Your task to perform on an android device: search for starred emails in the gmail app Image 0: 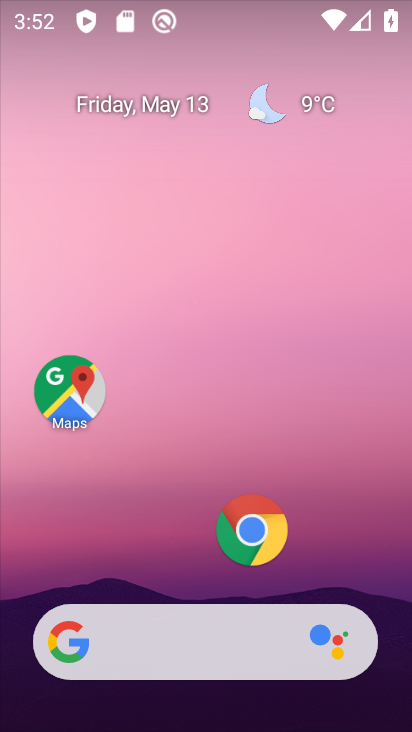
Step 0: drag from (198, 569) to (197, 68)
Your task to perform on an android device: search for starred emails in the gmail app Image 1: 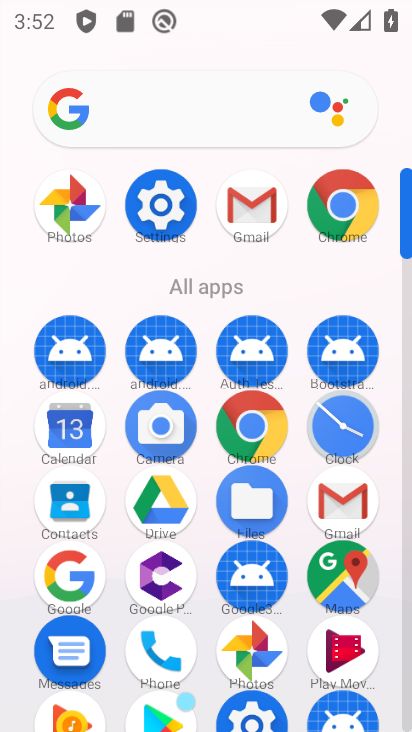
Step 1: click (248, 194)
Your task to perform on an android device: search for starred emails in the gmail app Image 2: 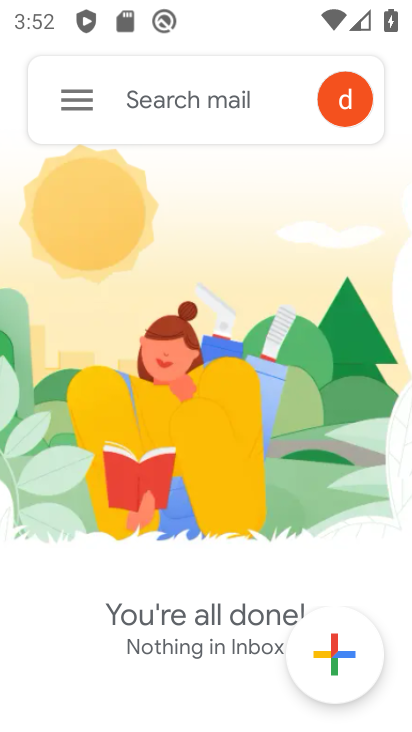
Step 2: click (71, 88)
Your task to perform on an android device: search for starred emails in the gmail app Image 3: 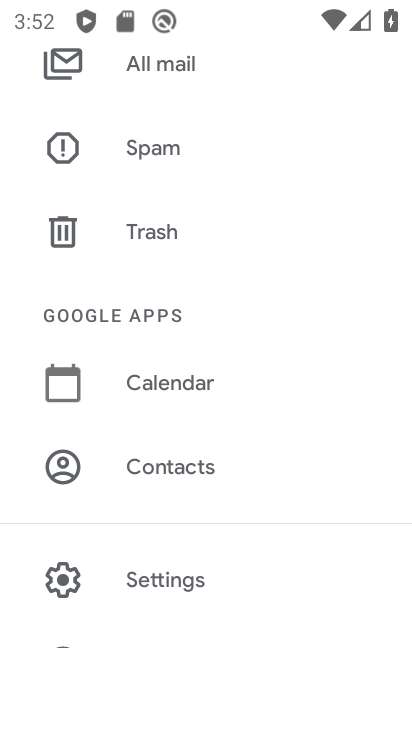
Step 3: drag from (118, 95) to (111, 622)
Your task to perform on an android device: search for starred emails in the gmail app Image 4: 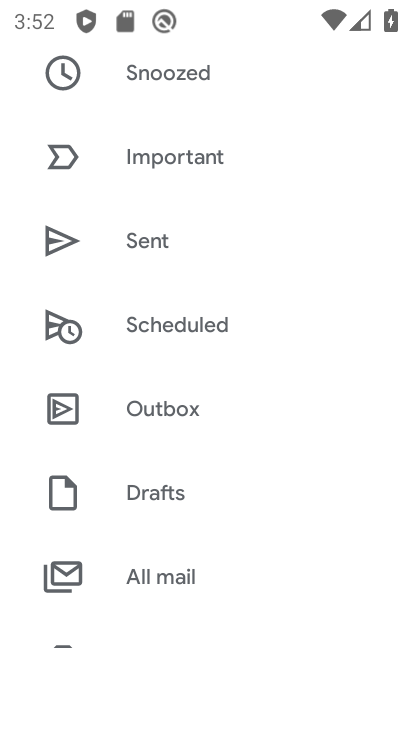
Step 4: drag from (103, 108) to (87, 607)
Your task to perform on an android device: search for starred emails in the gmail app Image 5: 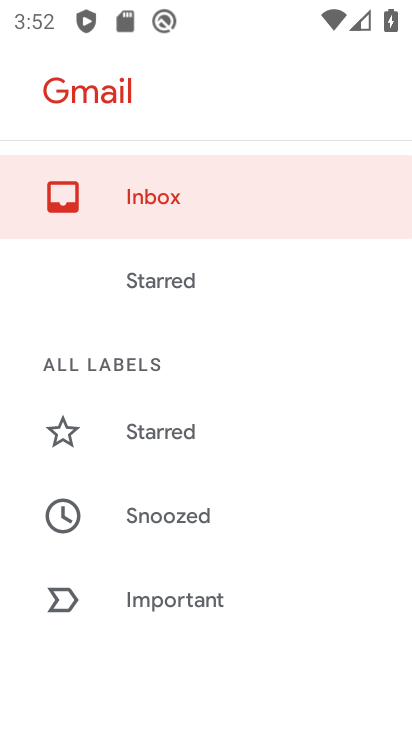
Step 5: click (105, 425)
Your task to perform on an android device: search for starred emails in the gmail app Image 6: 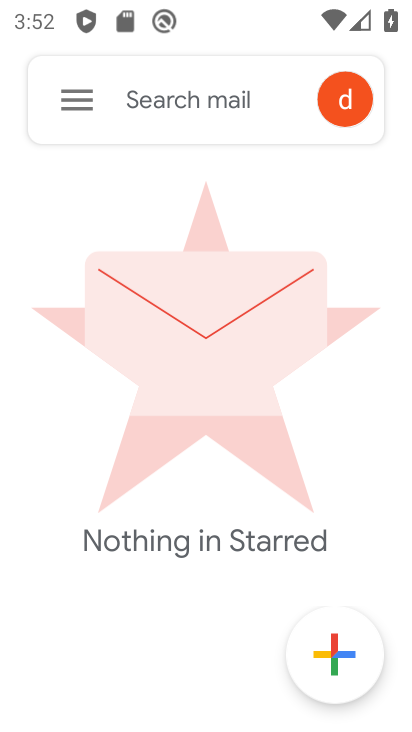
Step 6: task complete